Your task to perform on an android device: Open Amazon Image 0: 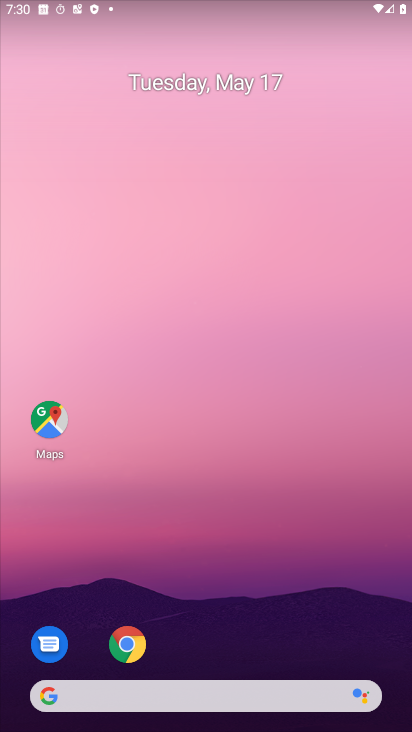
Step 0: drag from (349, 649) to (265, 93)
Your task to perform on an android device: Open Amazon Image 1: 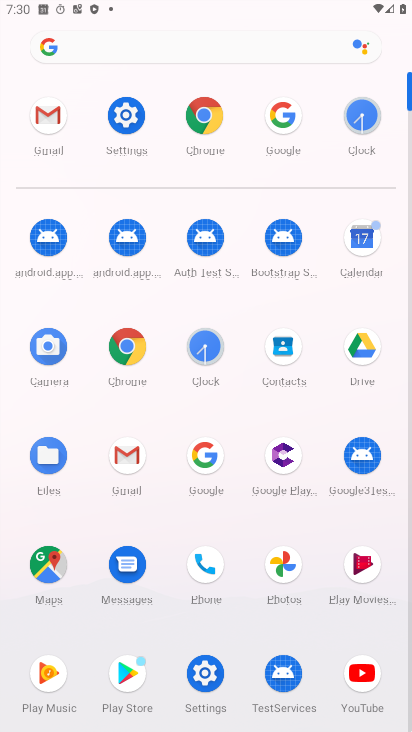
Step 1: click (220, 118)
Your task to perform on an android device: Open Amazon Image 2: 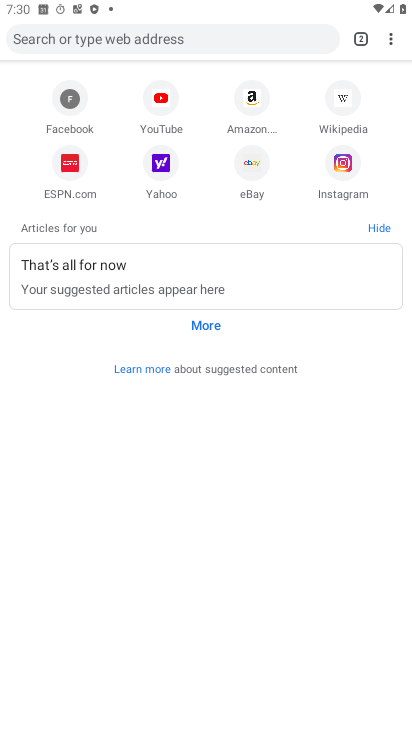
Step 2: click (244, 116)
Your task to perform on an android device: Open Amazon Image 3: 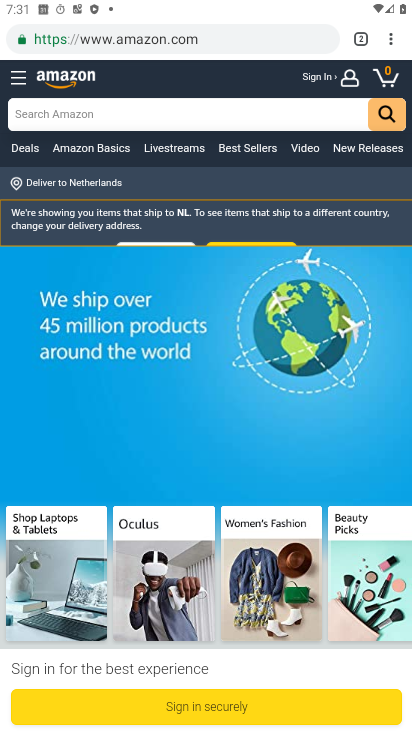
Step 3: task complete